Your task to perform on an android device: toggle notification dots Image 0: 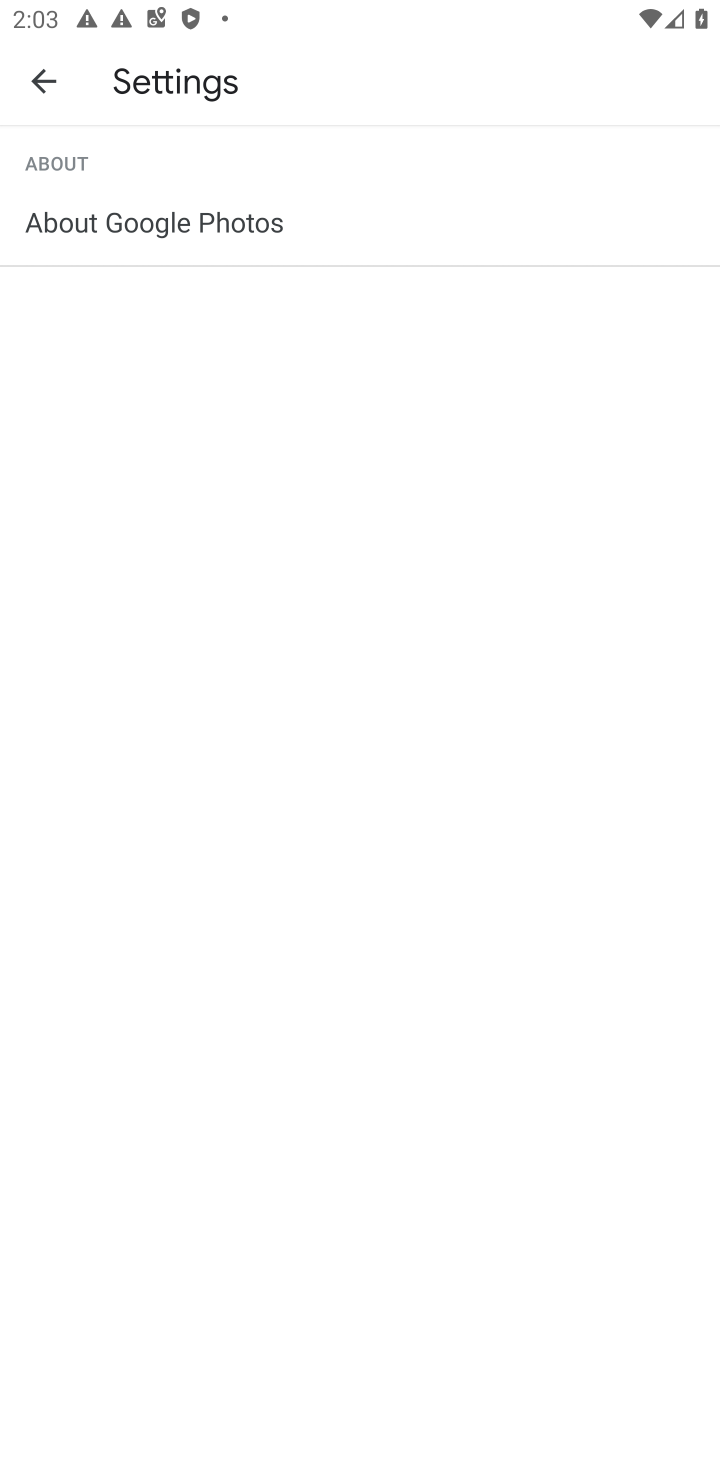
Step 0: click (408, 1236)
Your task to perform on an android device: toggle notification dots Image 1: 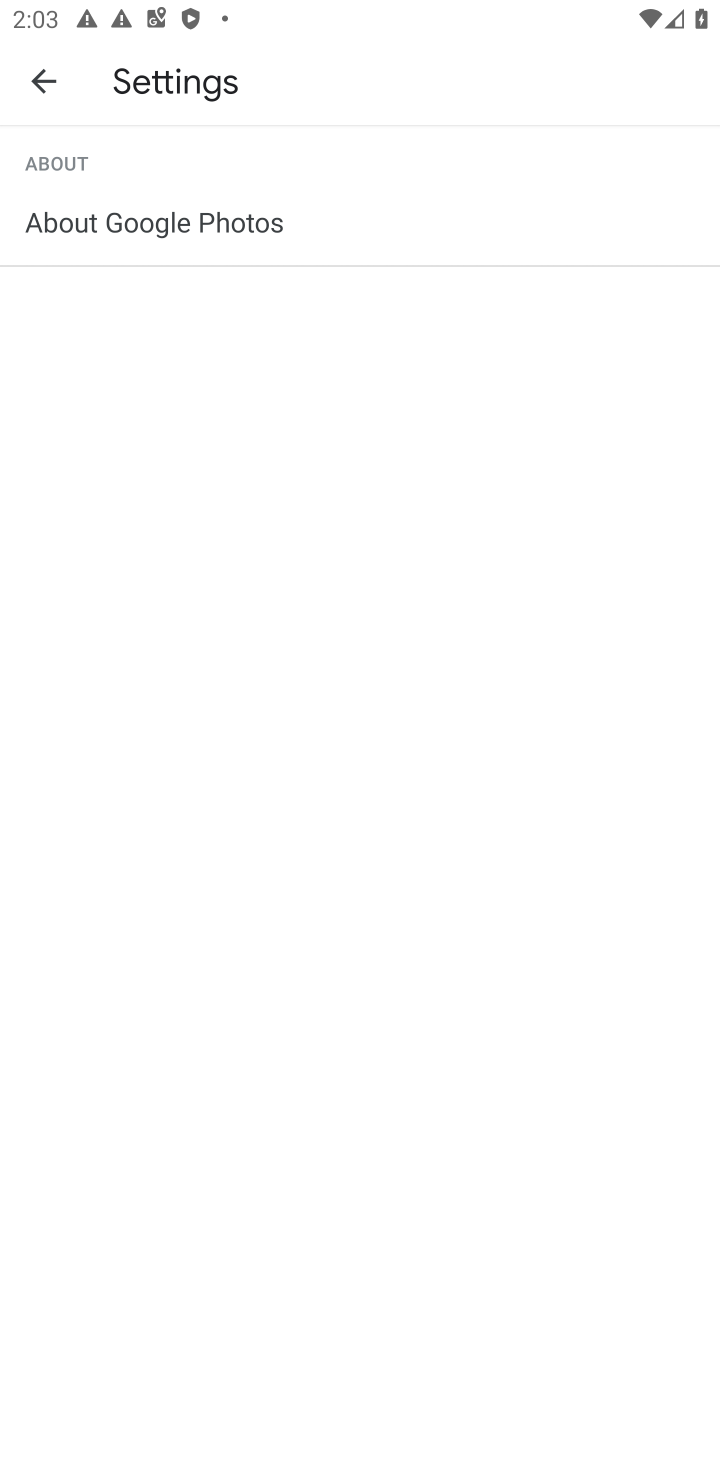
Step 1: press home button
Your task to perform on an android device: toggle notification dots Image 2: 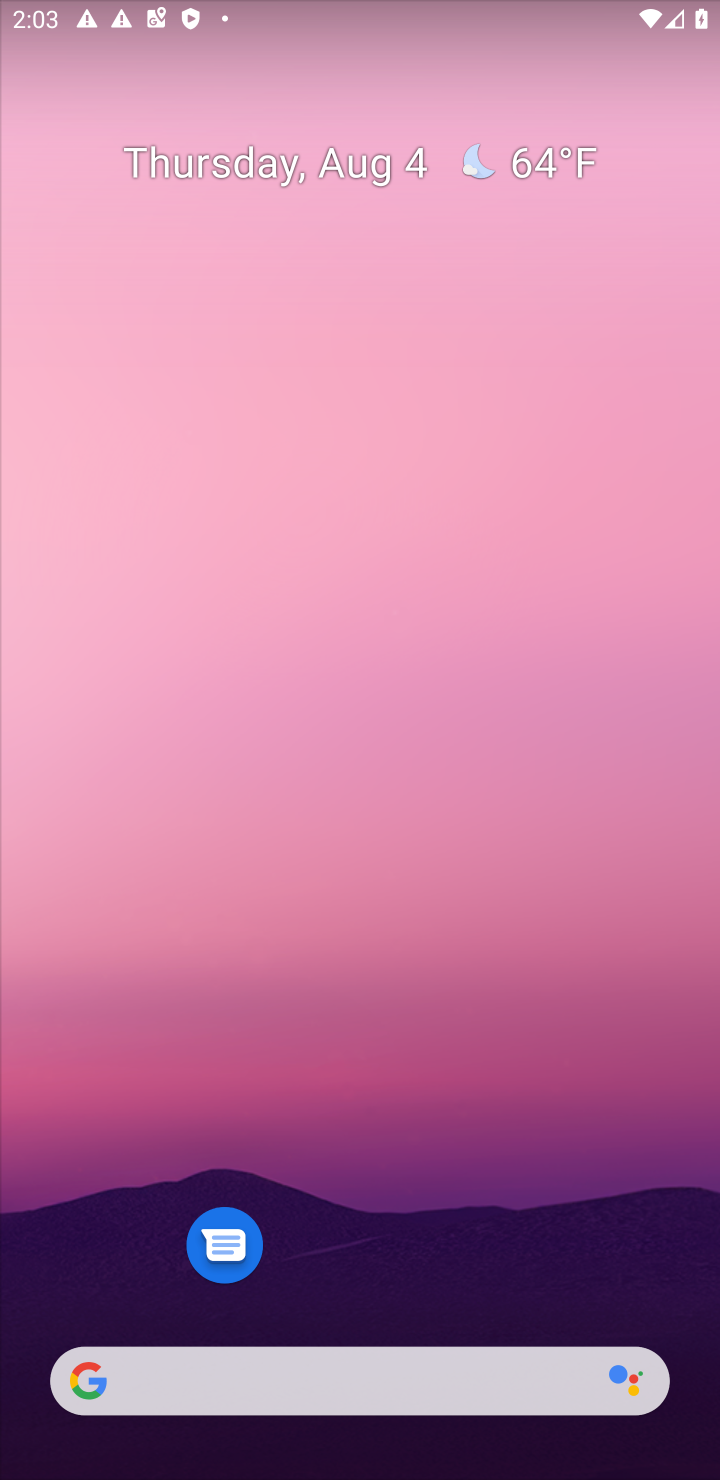
Step 2: drag from (343, 1299) to (430, 390)
Your task to perform on an android device: toggle notification dots Image 3: 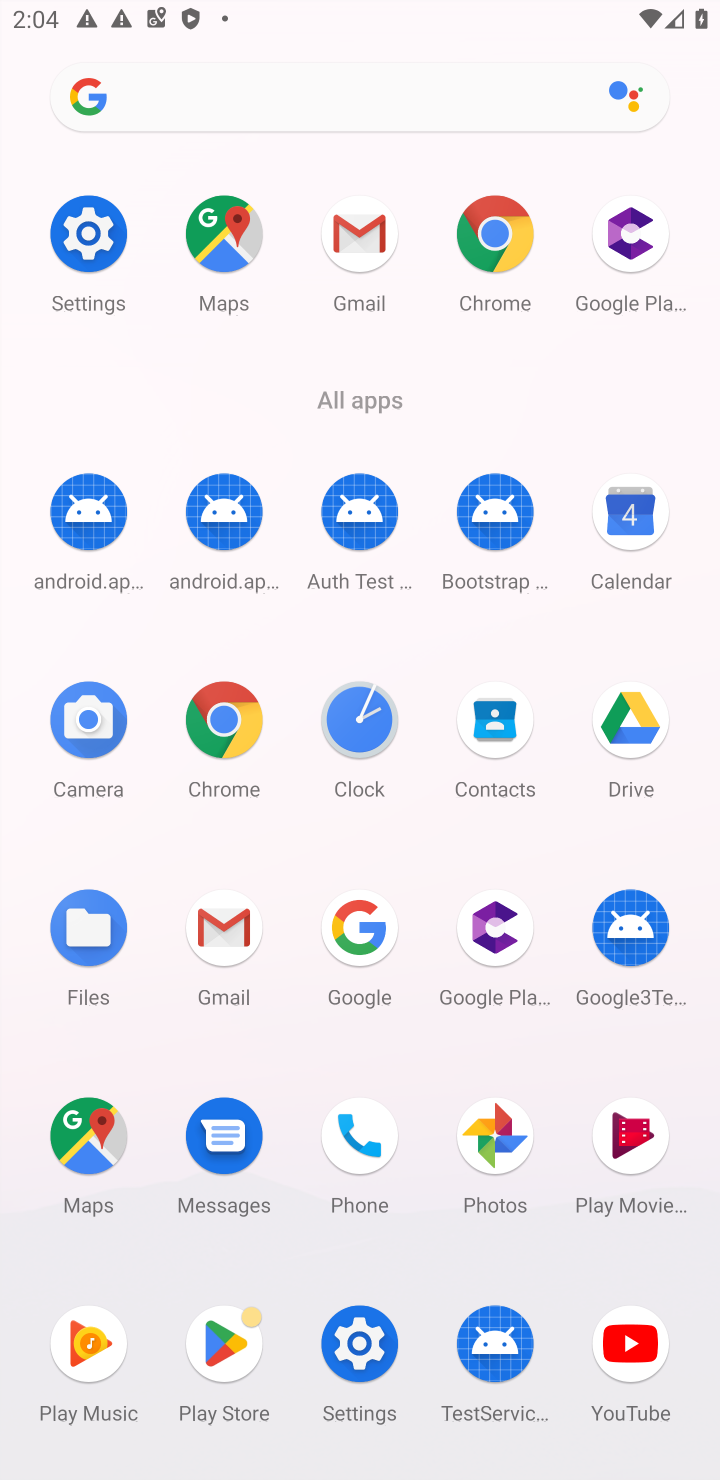
Step 3: click (96, 207)
Your task to perform on an android device: toggle notification dots Image 4: 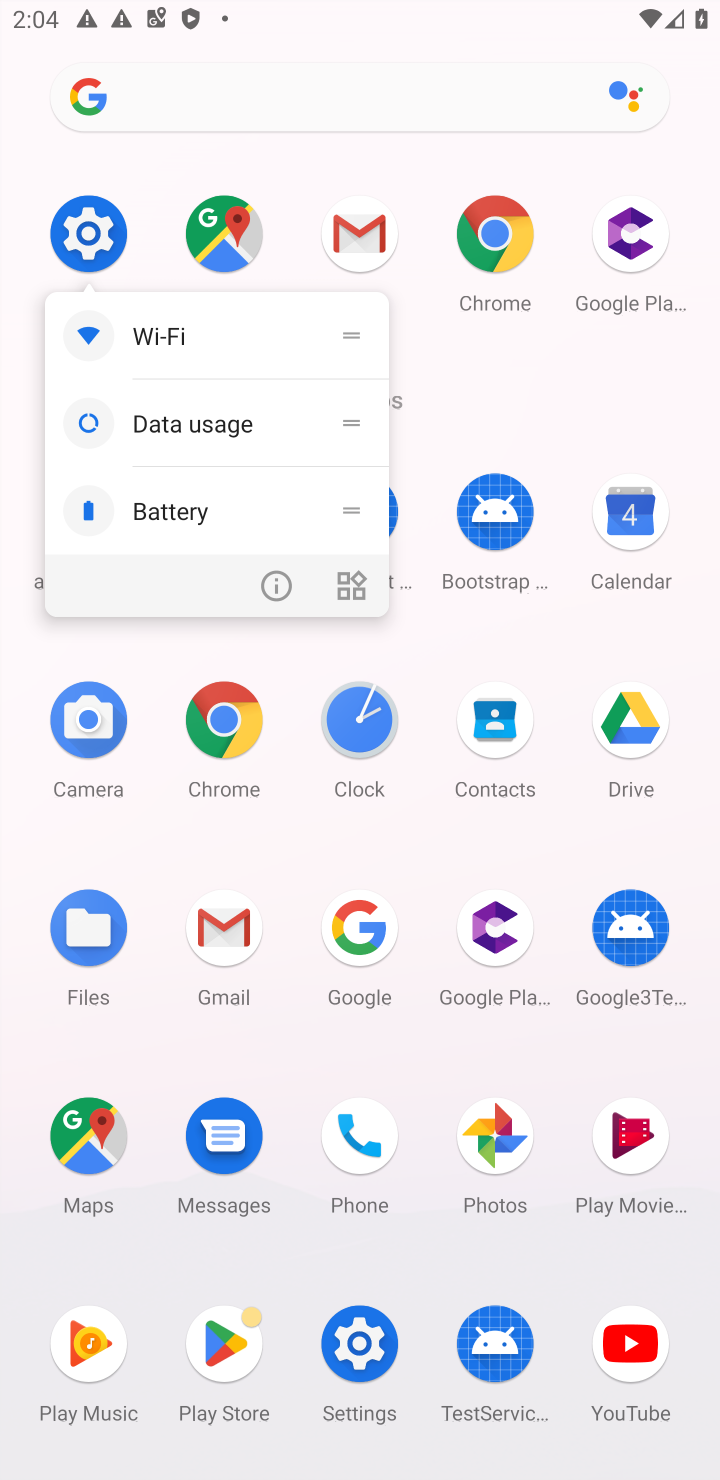
Step 4: click (89, 243)
Your task to perform on an android device: toggle notification dots Image 5: 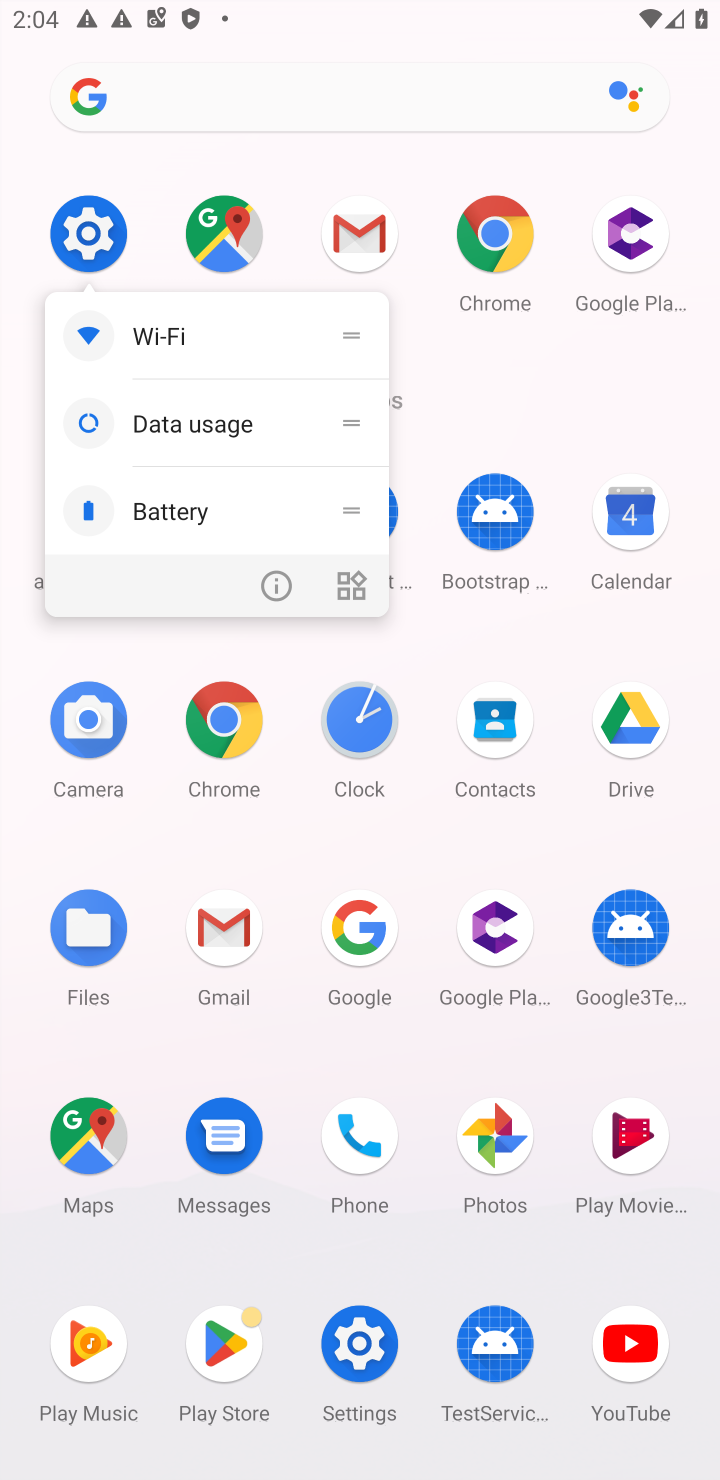
Step 5: click (371, 1372)
Your task to perform on an android device: toggle notification dots Image 6: 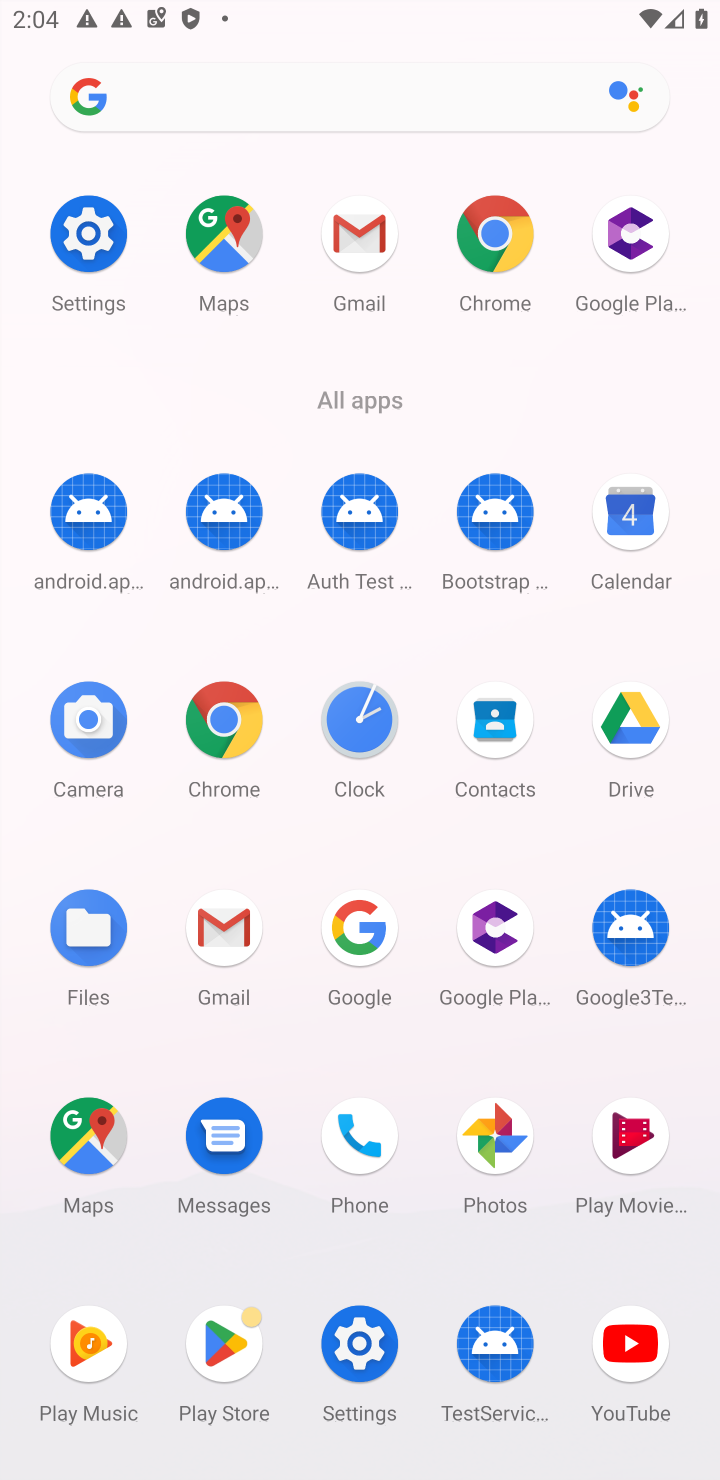
Step 6: click (381, 1369)
Your task to perform on an android device: toggle notification dots Image 7: 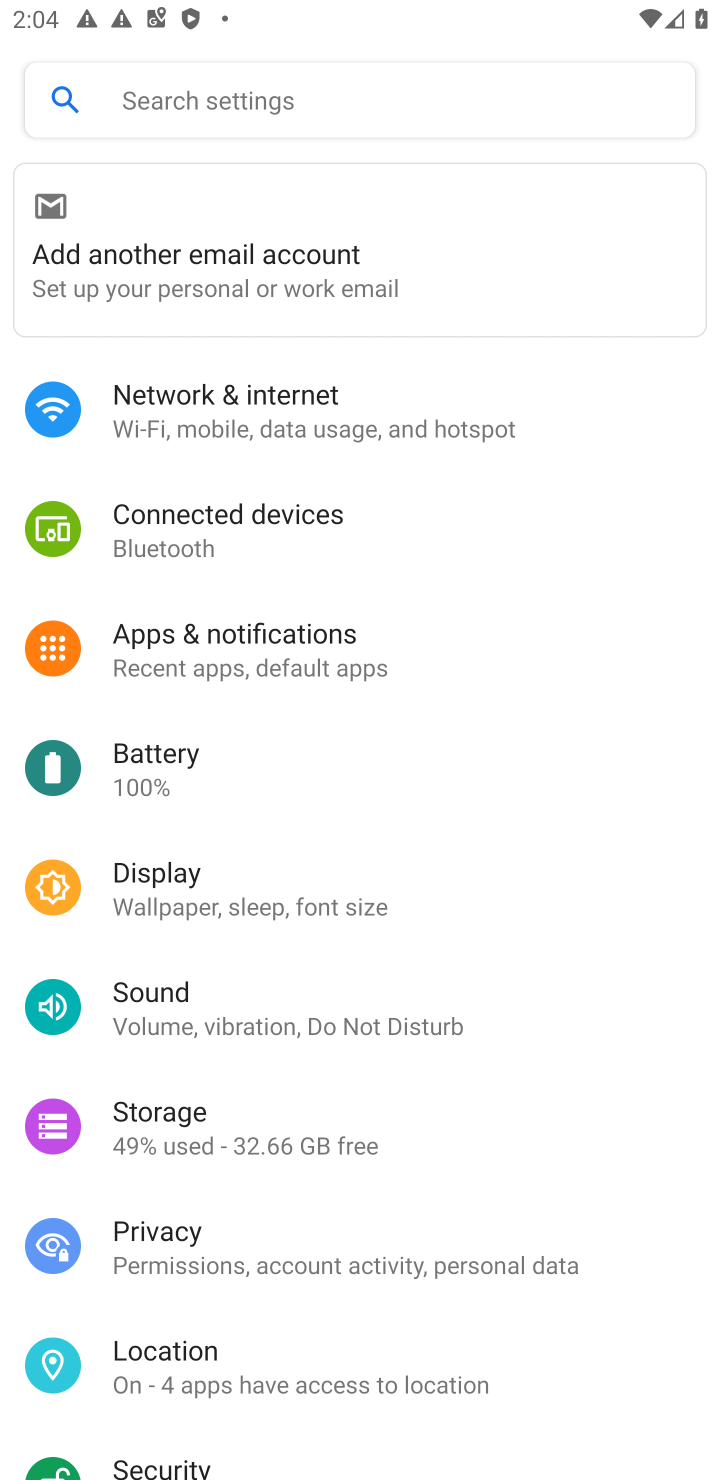
Step 7: click (310, 79)
Your task to perform on an android device: toggle notification dots Image 8: 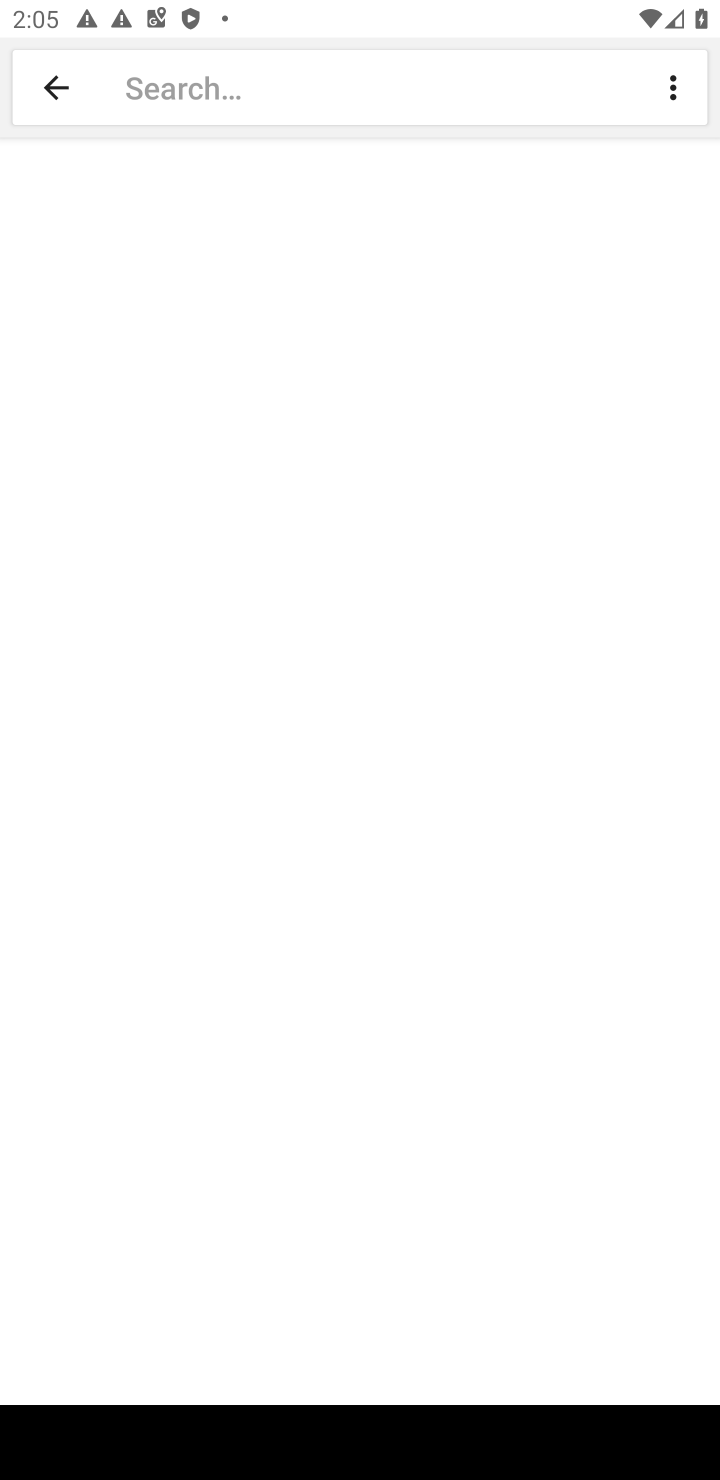
Step 8: click (246, 96)
Your task to perform on an android device: toggle notification dots Image 9: 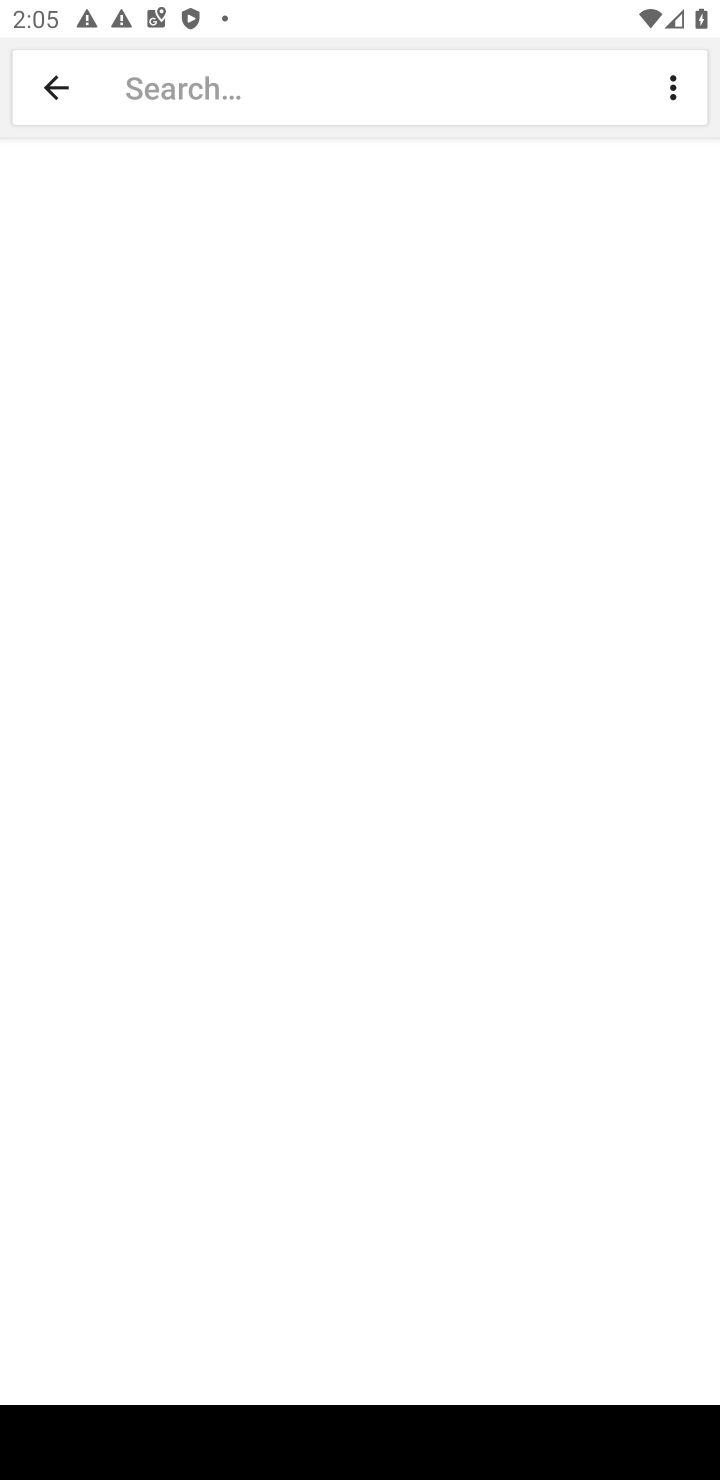
Step 9: click (461, 72)
Your task to perform on an android device: toggle notification dots Image 10: 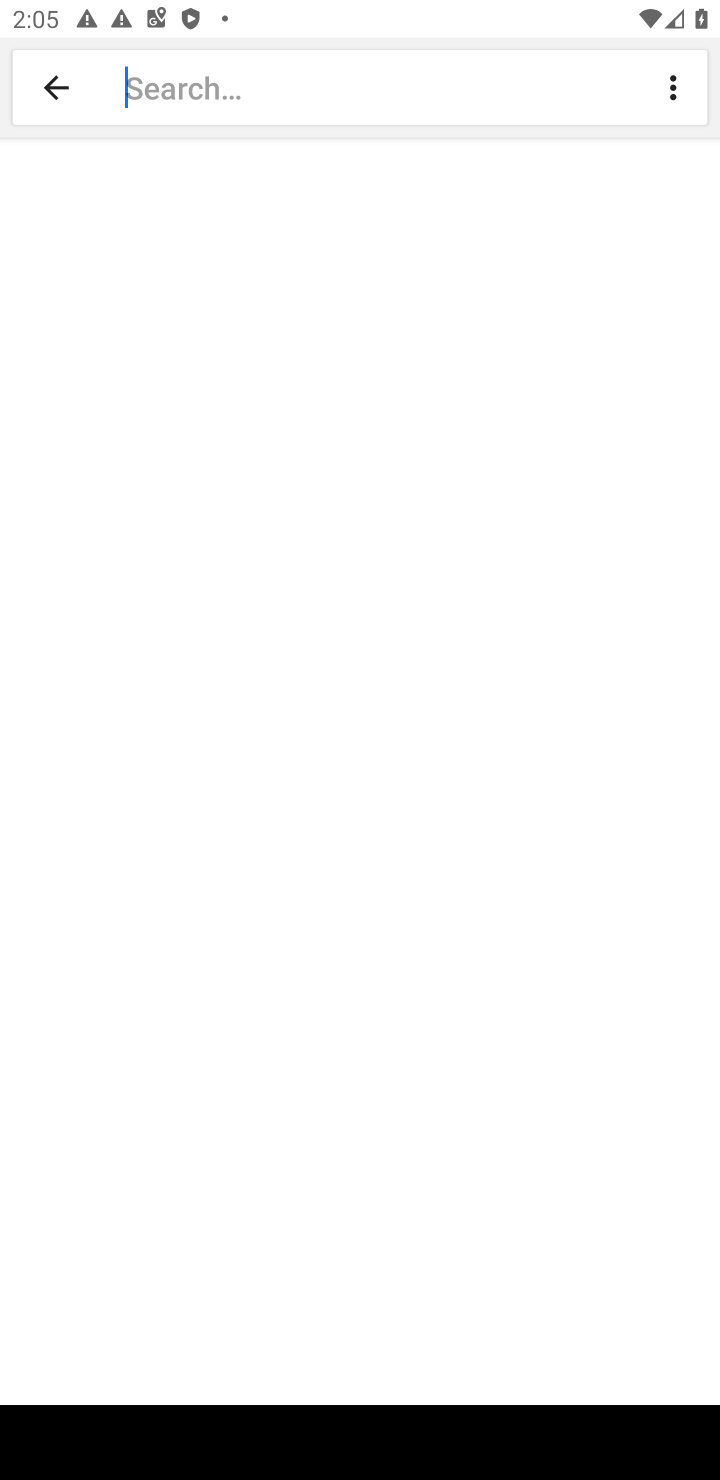
Step 10: type "notification dots "
Your task to perform on an android device: toggle notification dots Image 11: 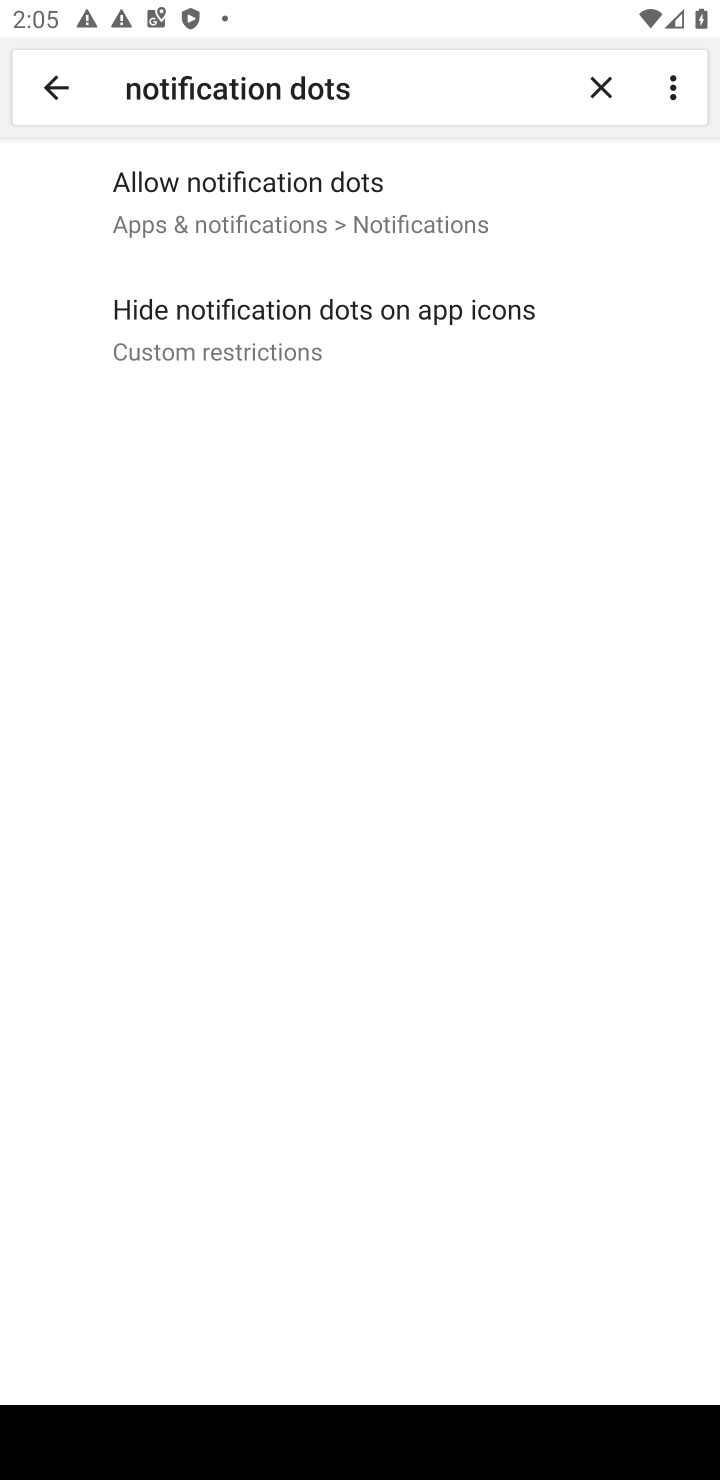
Step 11: click (357, 188)
Your task to perform on an android device: toggle notification dots Image 12: 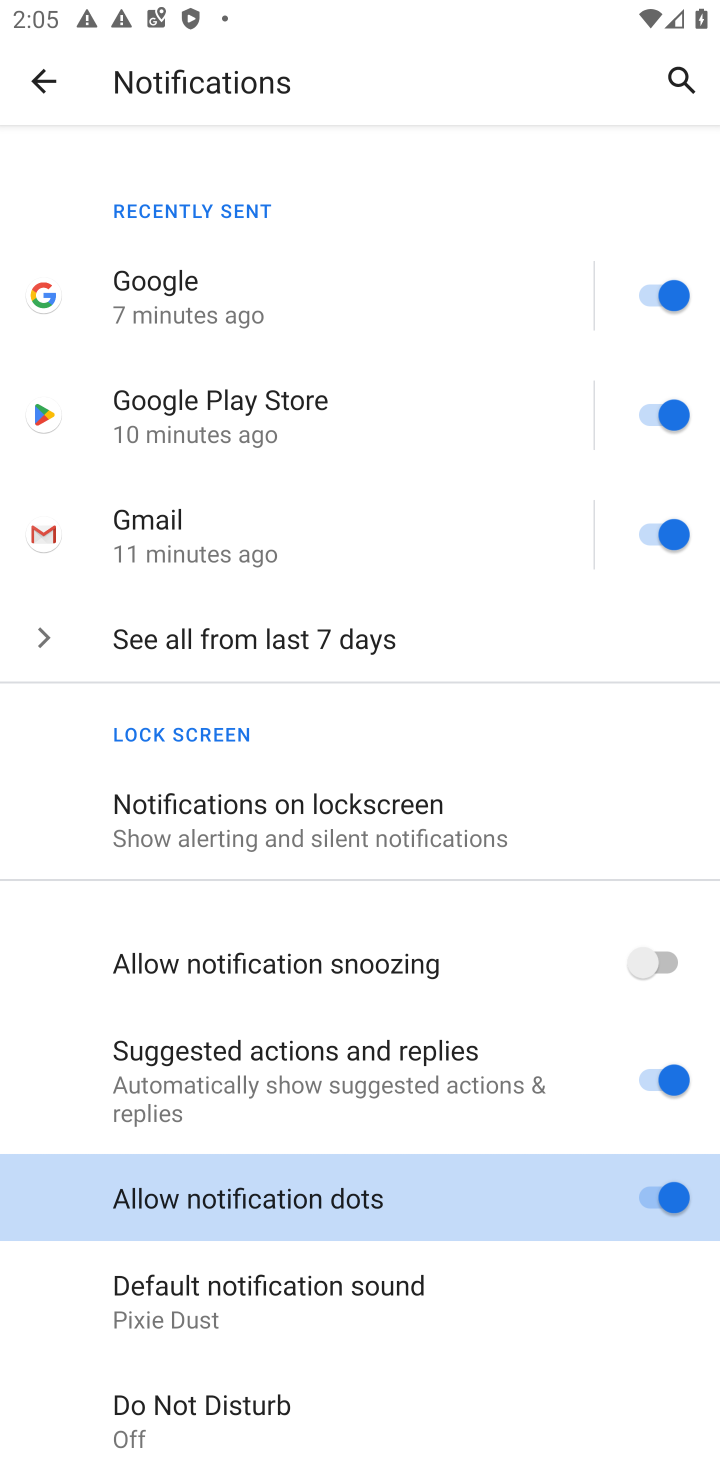
Step 12: click (648, 1213)
Your task to perform on an android device: toggle notification dots Image 13: 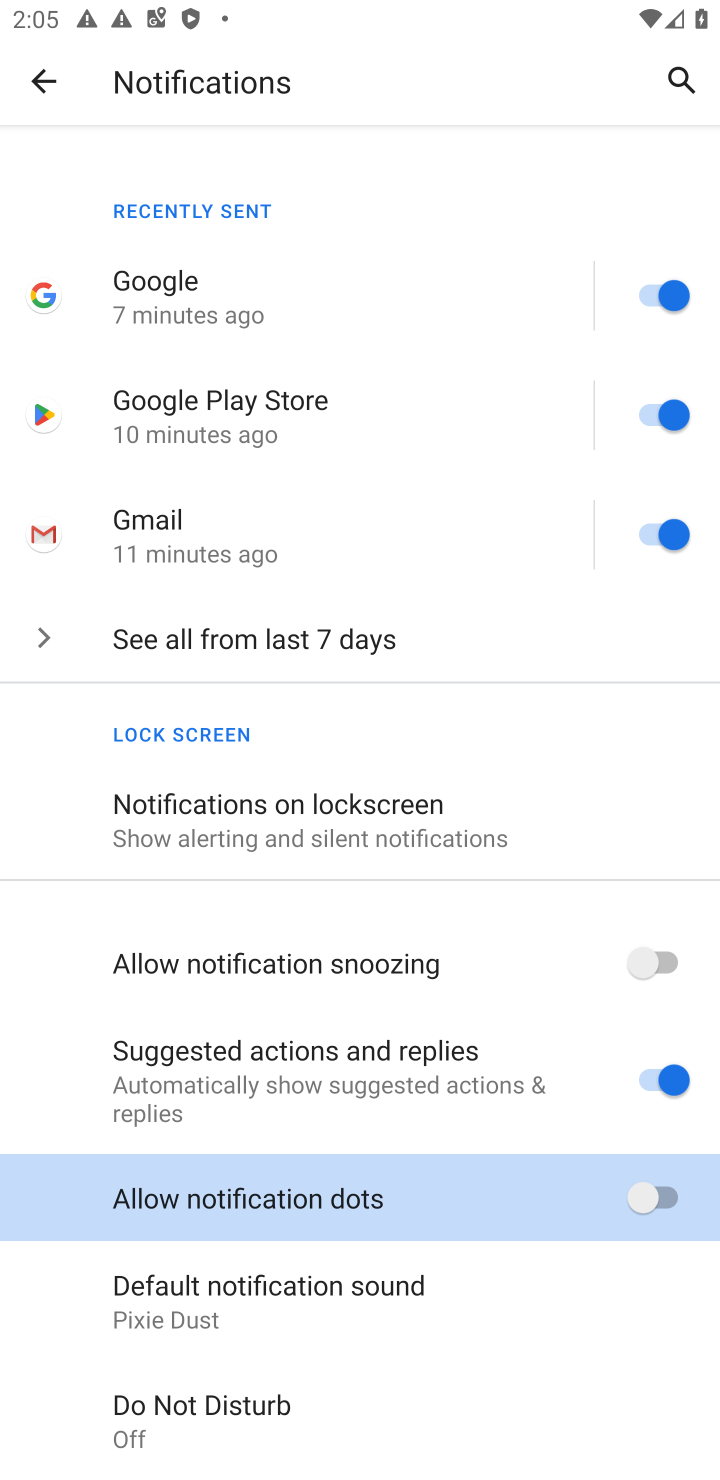
Step 13: task complete